Your task to perform on an android device: Open maps Image 0: 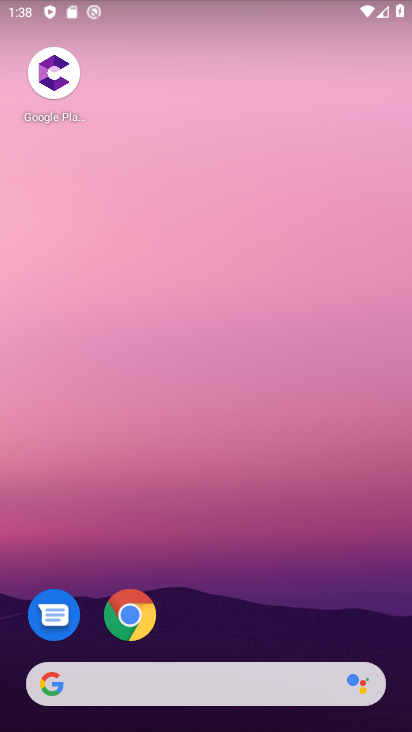
Step 0: drag from (287, 540) to (299, 18)
Your task to perform on an android device: Open maps Image 1: 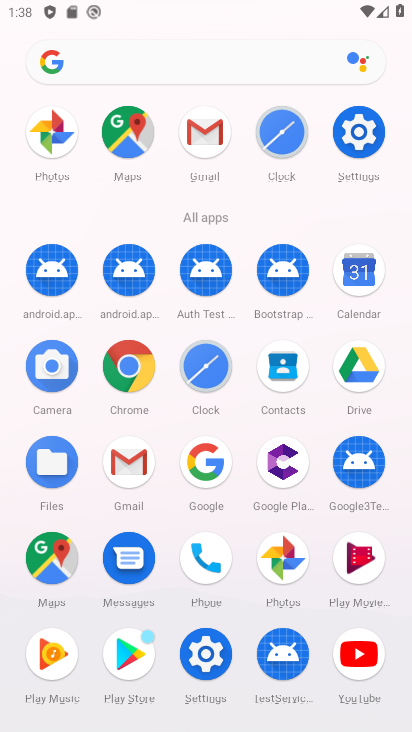
Step 1: click (38, 555)
Your task to perform on an android device: Open maps Image 2: 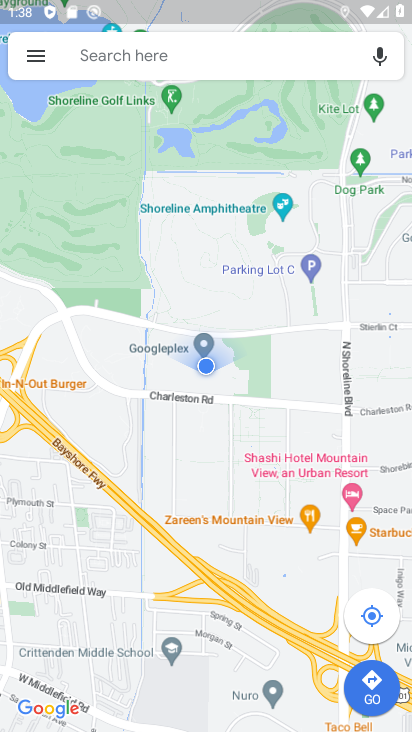
Step 2: task complete